Your task to perform on an android device: Search for sushi restaurants on Maps Image 0: 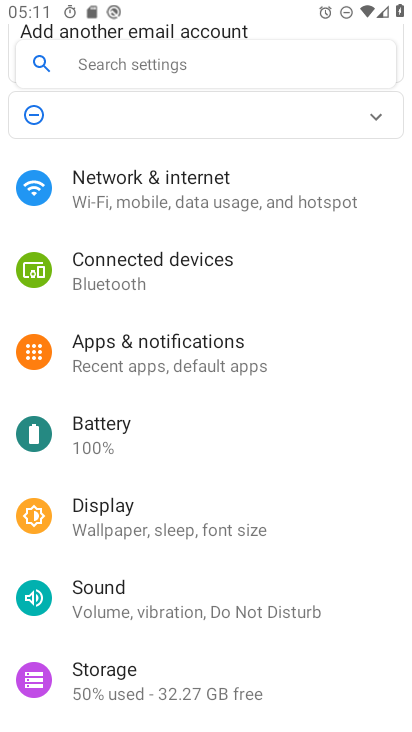
Step 0: press home button
Your task to perform on an android device: Search for sushi restaurants on Maps Image 1: 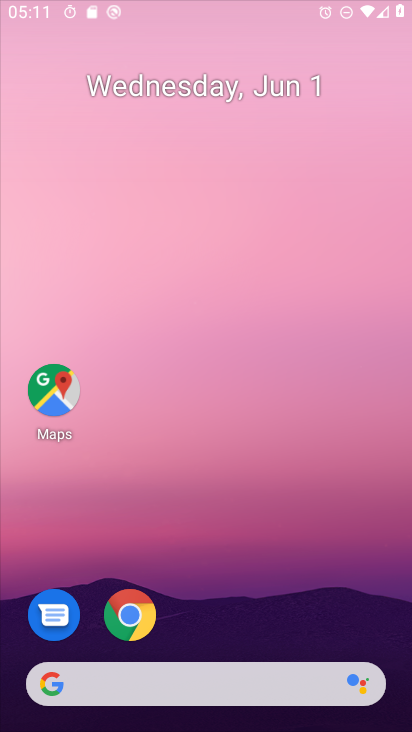
Step 1: drag from (278, 682) to (407, 138)
Your task to perform on an android device: Search for sushi restaurants on Maps Image 2: 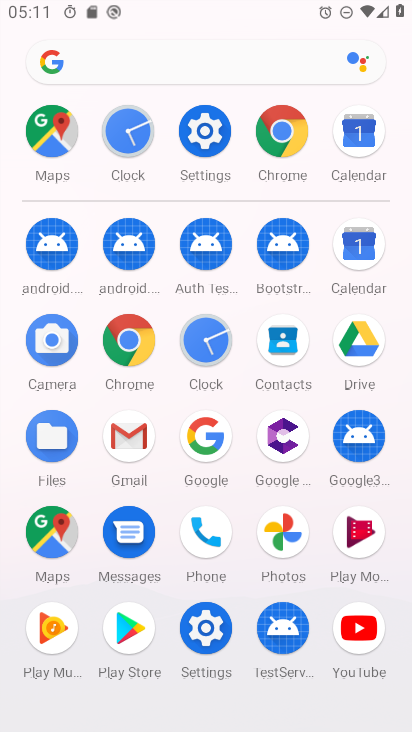
Step 2: click (49, 517)
Your task to perform on an android device: Search for sushi restaurants on Maps Image 3: 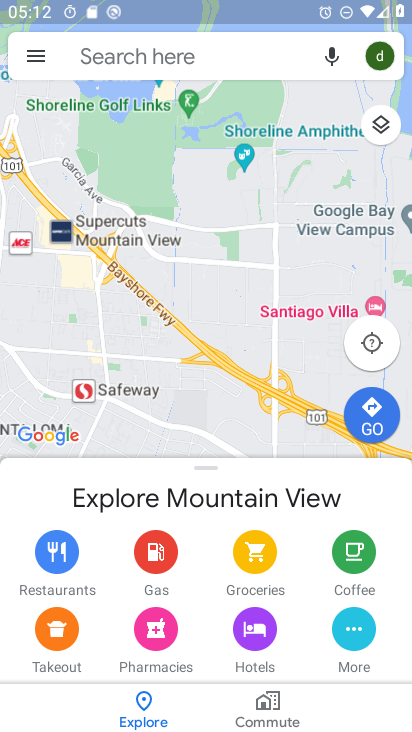
Step 3: click (280, 59)
Your task to perform on an android device: Search for sushi restaurants on Maps Image 4: 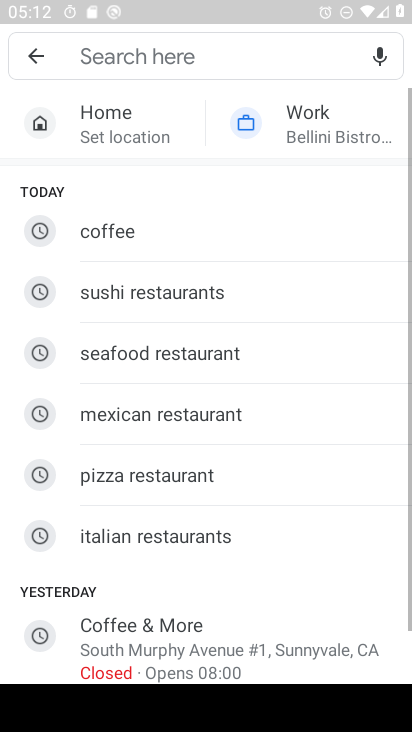
Step 4: click (128, 292)
Your task to perform on an android device: Search for sushi restaurants on Maps Image 5: 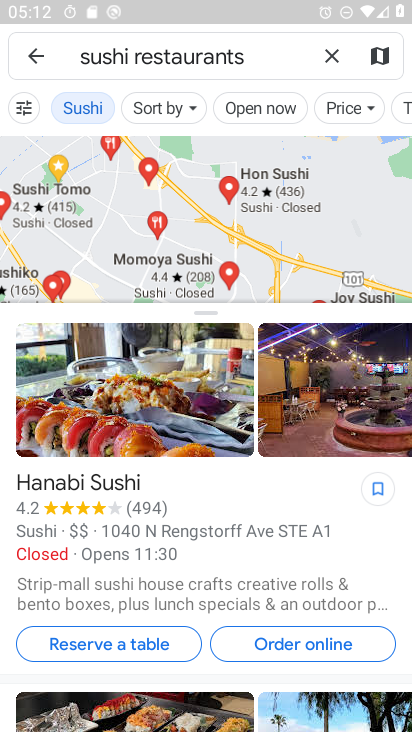
Step 5: task complete